Your task to perform on an android device: Clear all items from cart on costco.com. Search for "razer huntsman" on costco.com, select the first entry, and add it to the cart. Image 0: 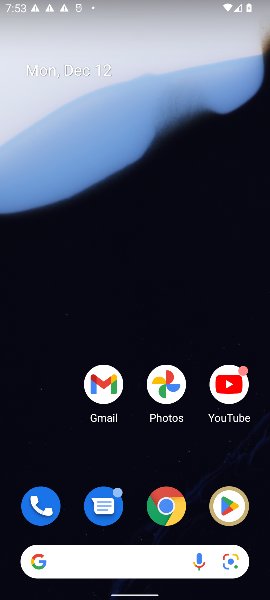
Step 0: click (134, 562)
Your task to perform on an android device: Clear all items from cart on costco.com. Search for "razer huntsman" on costco.com, select the first entry, and add it to the cart. Image 1: 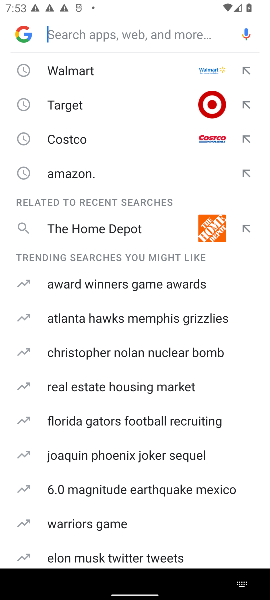
Step 1: click (106, 137)
Your task to perform on an android device: Clear all items from cart on costco.com. Search for "razer huntsman" on costco.com, select the first entry, and add it to the cart. Image 2: 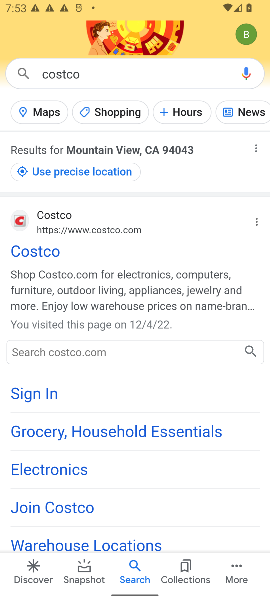
Step 2: click (46, 259)
Your task to perform on an android device: Clear all items from cart on costco.com. Search for "razer huntsman" on costco.com, select the first entry, and add it to the cart. Image 3: 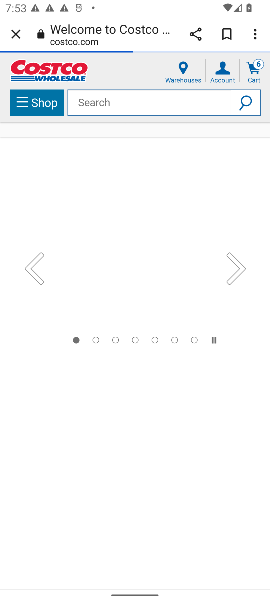
Step 3: click (140, 105)
Your task to perform on an android device: Clear all items from cart on costco.com. Search for "razer huntsman" on costco.com, select the first entry, and add it to the cart. Image 4: 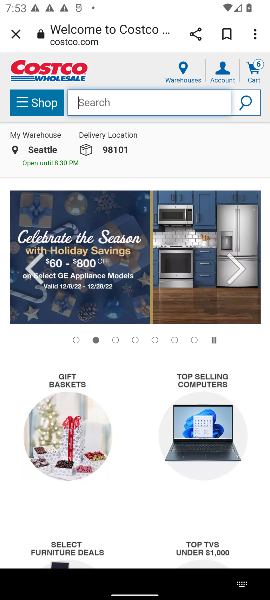
Step 4: type "razer huntsman"
Your task to perform on an android device: Clear all items from cart on costco.com. Search for "razer huntsman" on costco.com, select the first entry, and add it to the cart. Image 5: 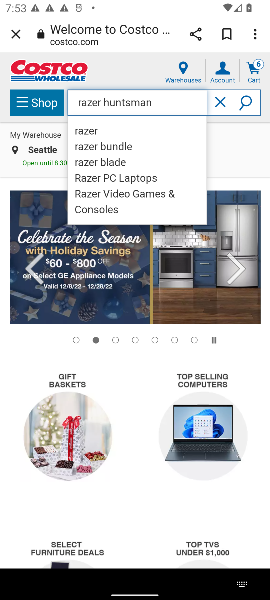
Step 5: click (241, 106)
Your task to perform on an android device: Clear all items from cart on costco.com. Search for "razer huntsman" on costco.com, select the first entry, and add it to the cart. Image 6: 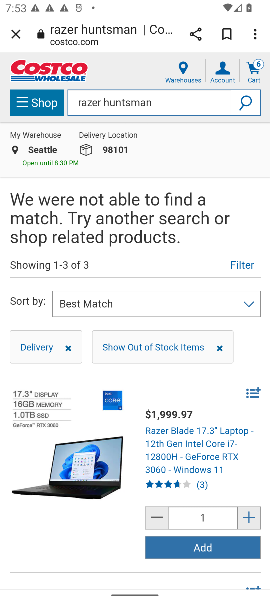
Step 6: click (228, 547)
Your task to perform on an android device: Clear all items from cart on costco.com. Search for "razer huntsman" on costco.com, select the first entry, and add it to the cart. Image 7: 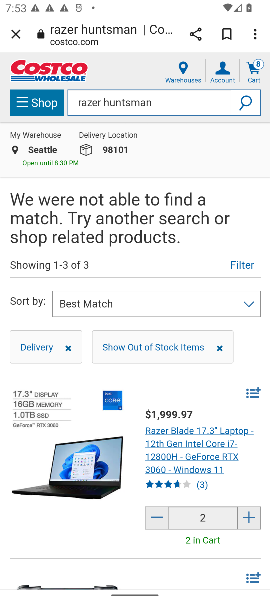
Step 7: task complete